Your task to perform on an android device: Do I have any events today? Image 0: 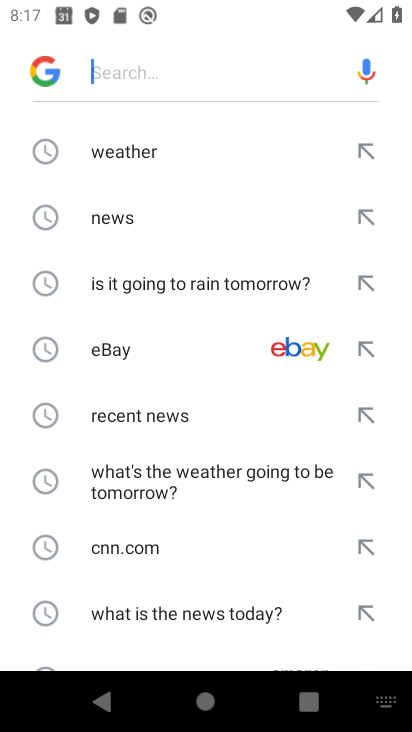
Step 0: press home button
Your task to perform on an android device: Do I have any events today? Image 1: 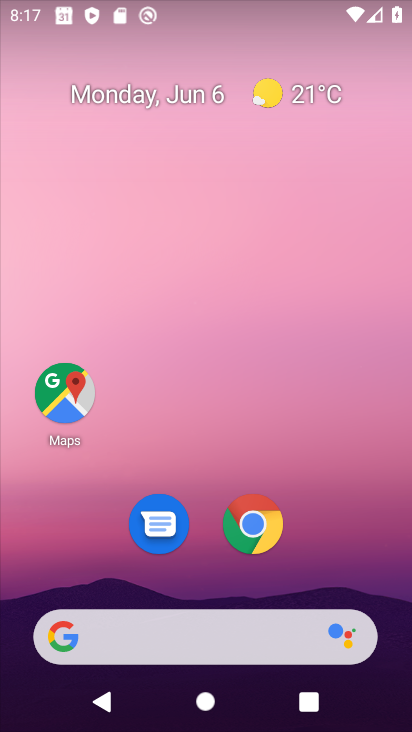
Step 1: drag from (202, 458) to (188, 0)
Your task to perform on an android device: Do I have any events today? Image 2: 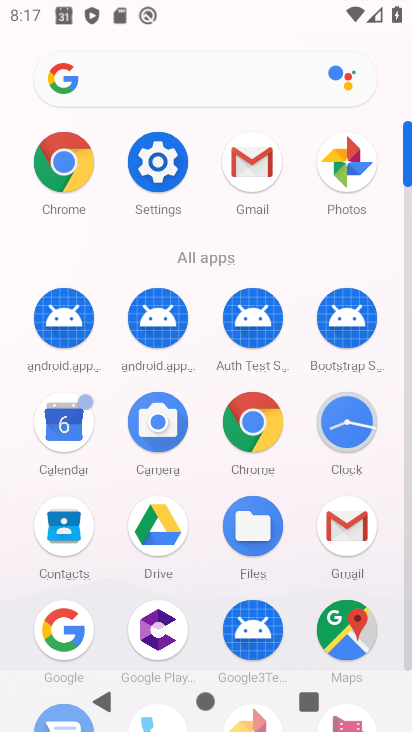
Step 2: click (74, 433)
Your task to perform on an android device: Do I have any events today? Image 3: 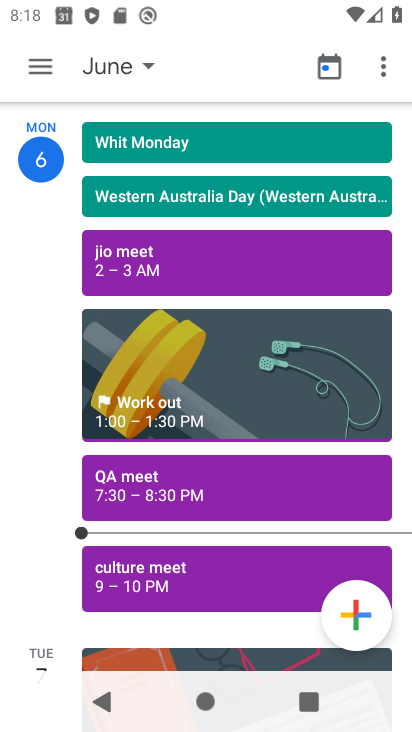
Step 3: task complete